Your task to perform on an android device: Go to battery settings Image 0: 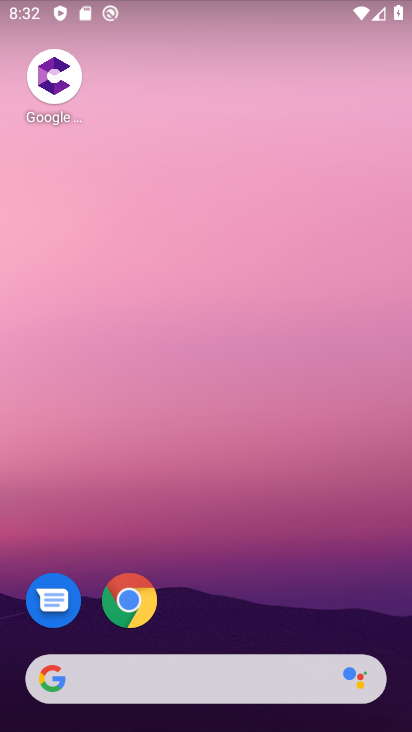
Step 0: drag from (287, 541) to (96, 5)
Your task to perform on an android device: Go to battery settings Image 1: 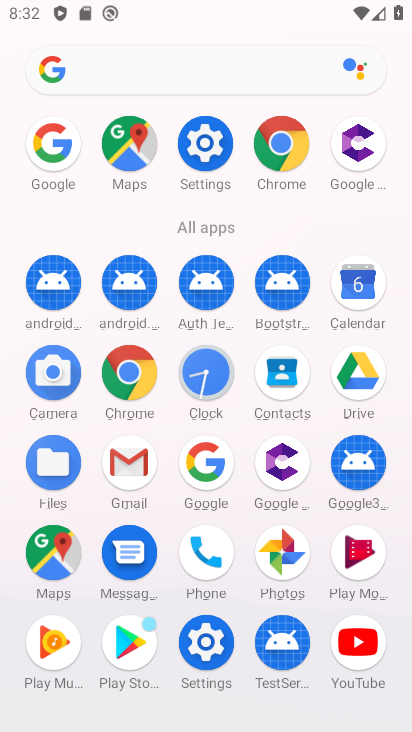
Step 1: click (193, 144)
Your task to perform on an android device: Go to battery settings Image 2: 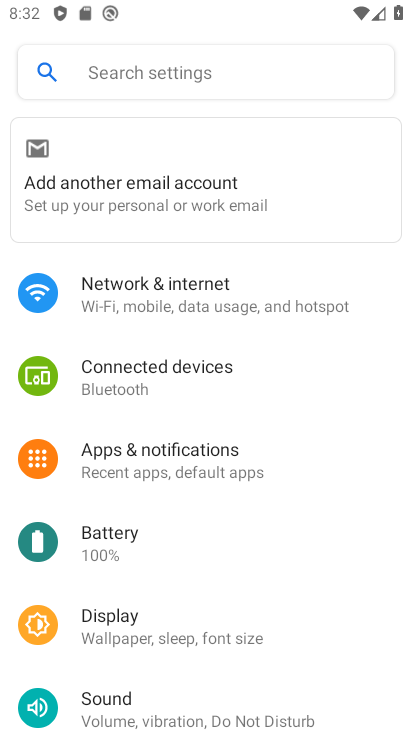
Step 2: click (228, 554)
Your task to perform on an android device: Go to battery settings Image 3: 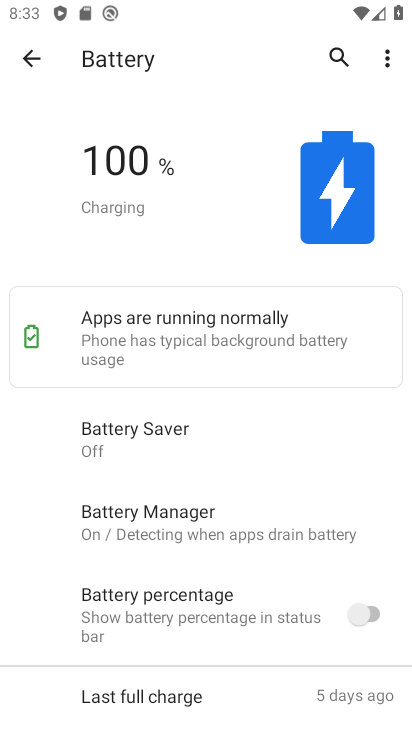
Step 3: click (391, 56)
Your task to perform on an android device: Go to battery settings Image 4: 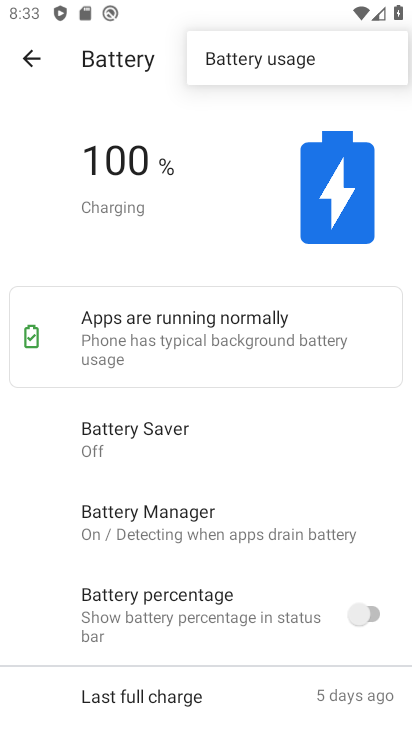
Step 4: task complete